Your task to perform on an android device: How much does a 2 bedroom apartment rent for in New York? Image 0: 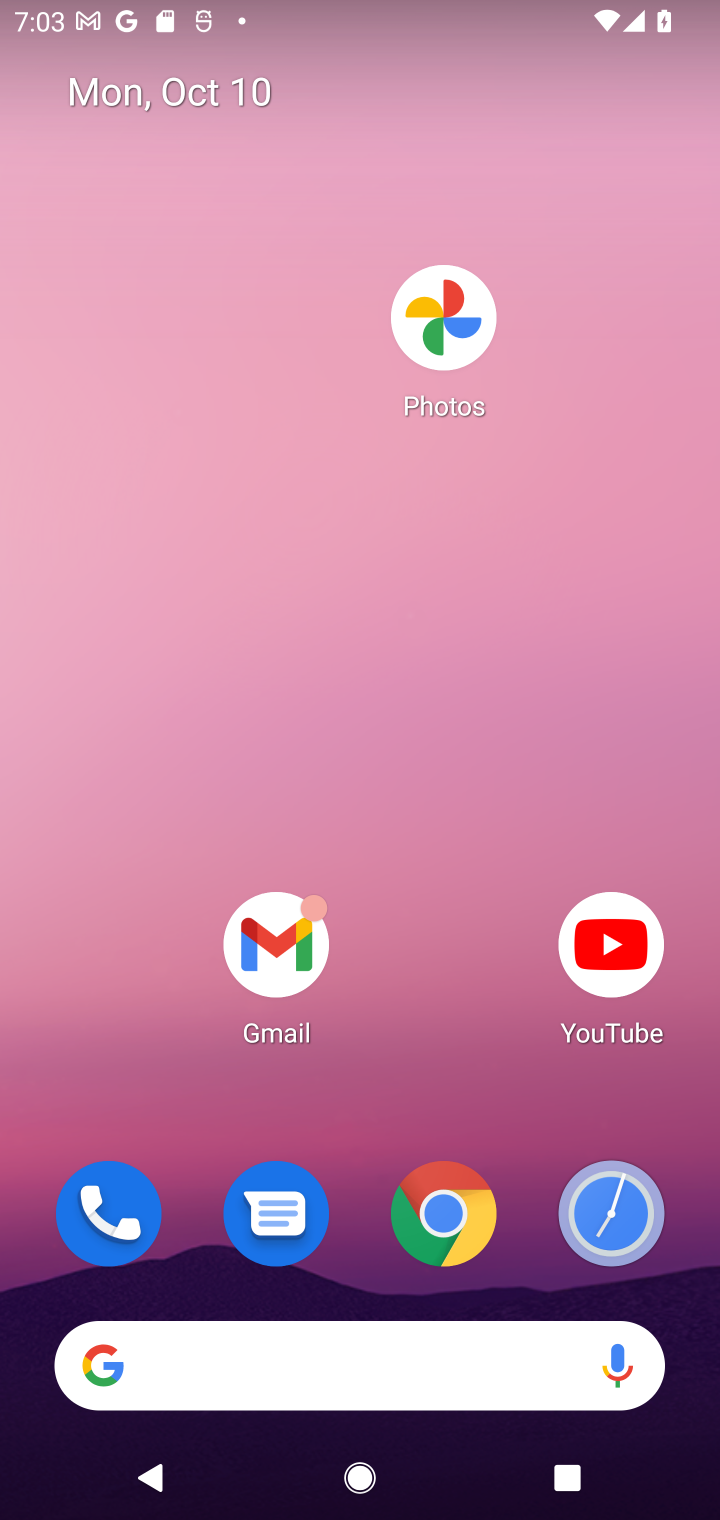
Step 0: click (322, 1384)
Your task to perform on an android device: How much does a 2 bedroom apartment rent for in New York? Image 1: 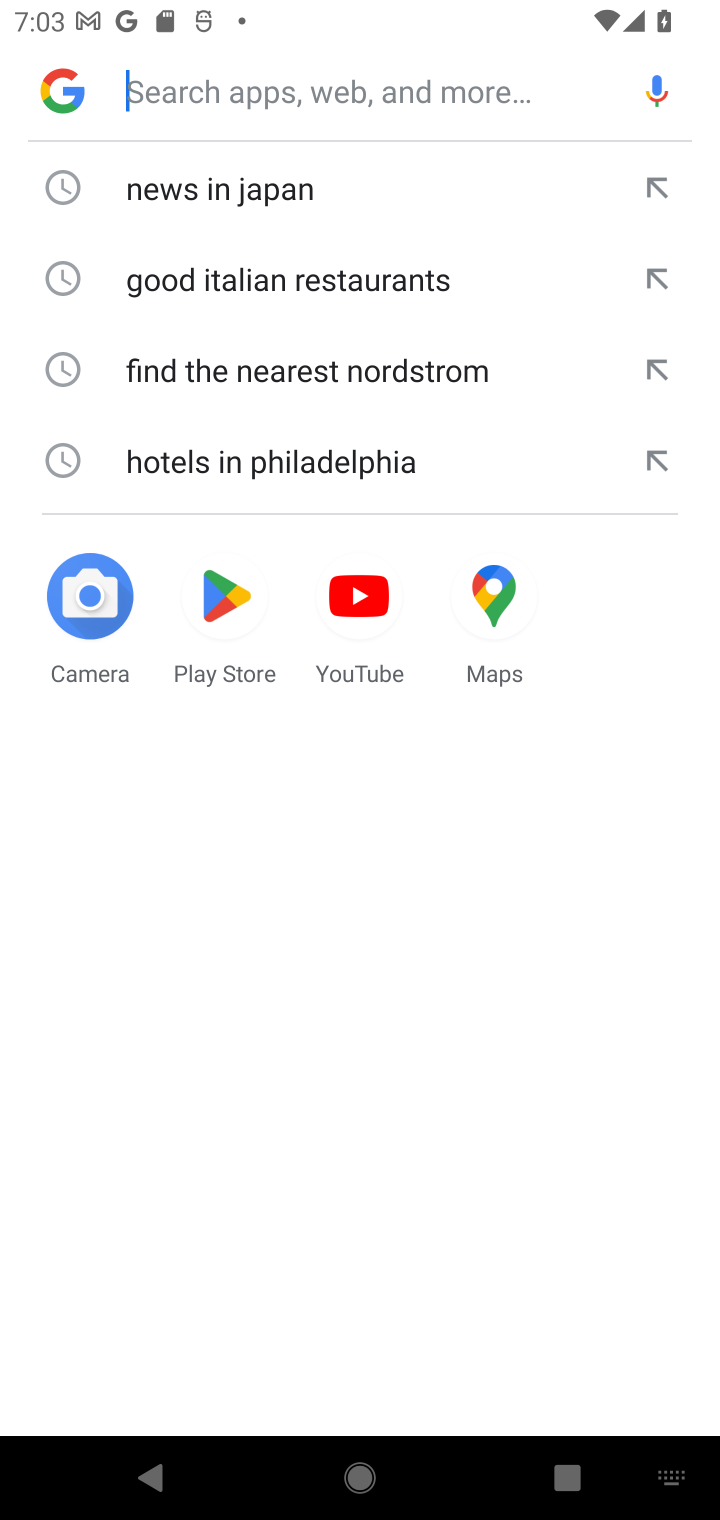
Step 1: type "2 bedroom apartment rent for in New York"
Your task to perform on an android device: How much does a 2 bedroom apartment rent for in New York? Image 2: 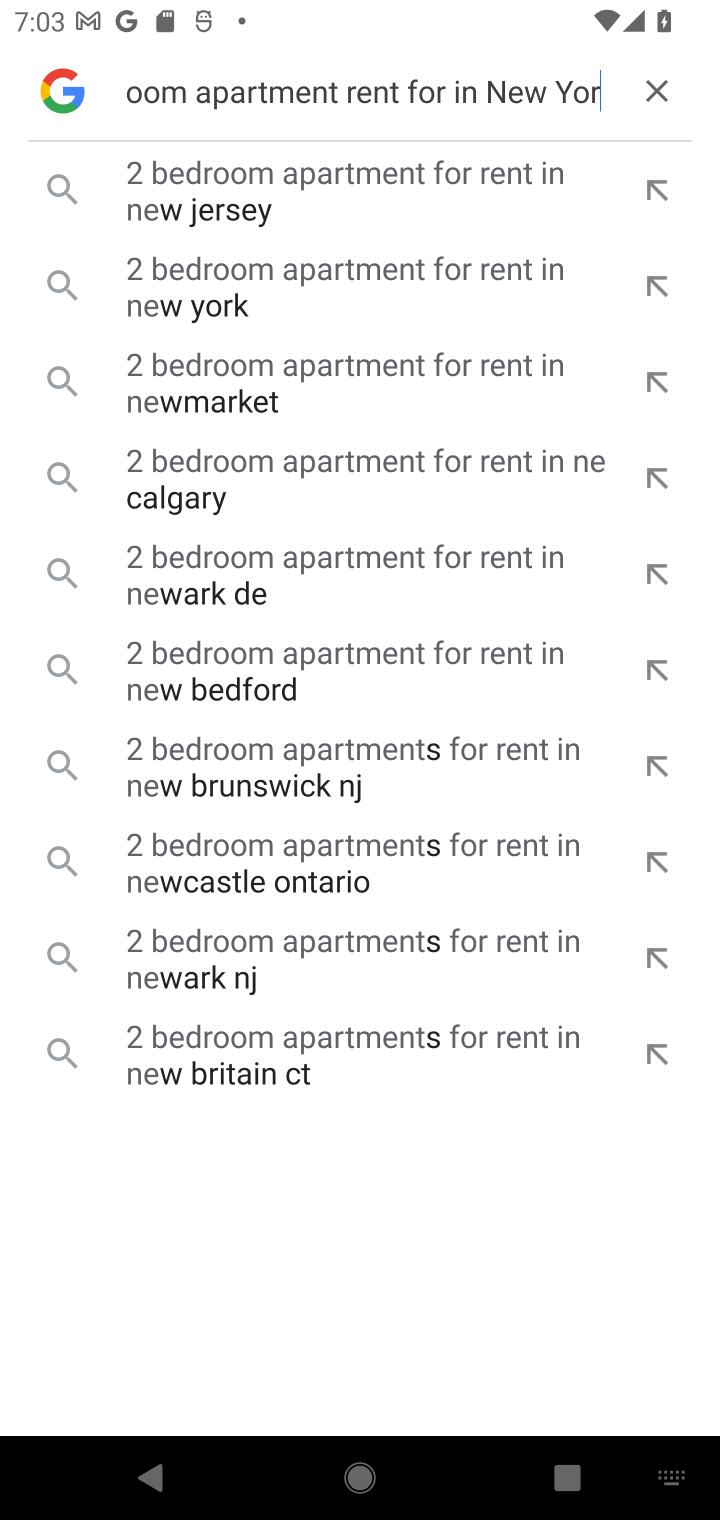
Step 2: type ""
Your task to perform on an android device: How much does a 2 bedroom apartment rent for in New York? Image 3: 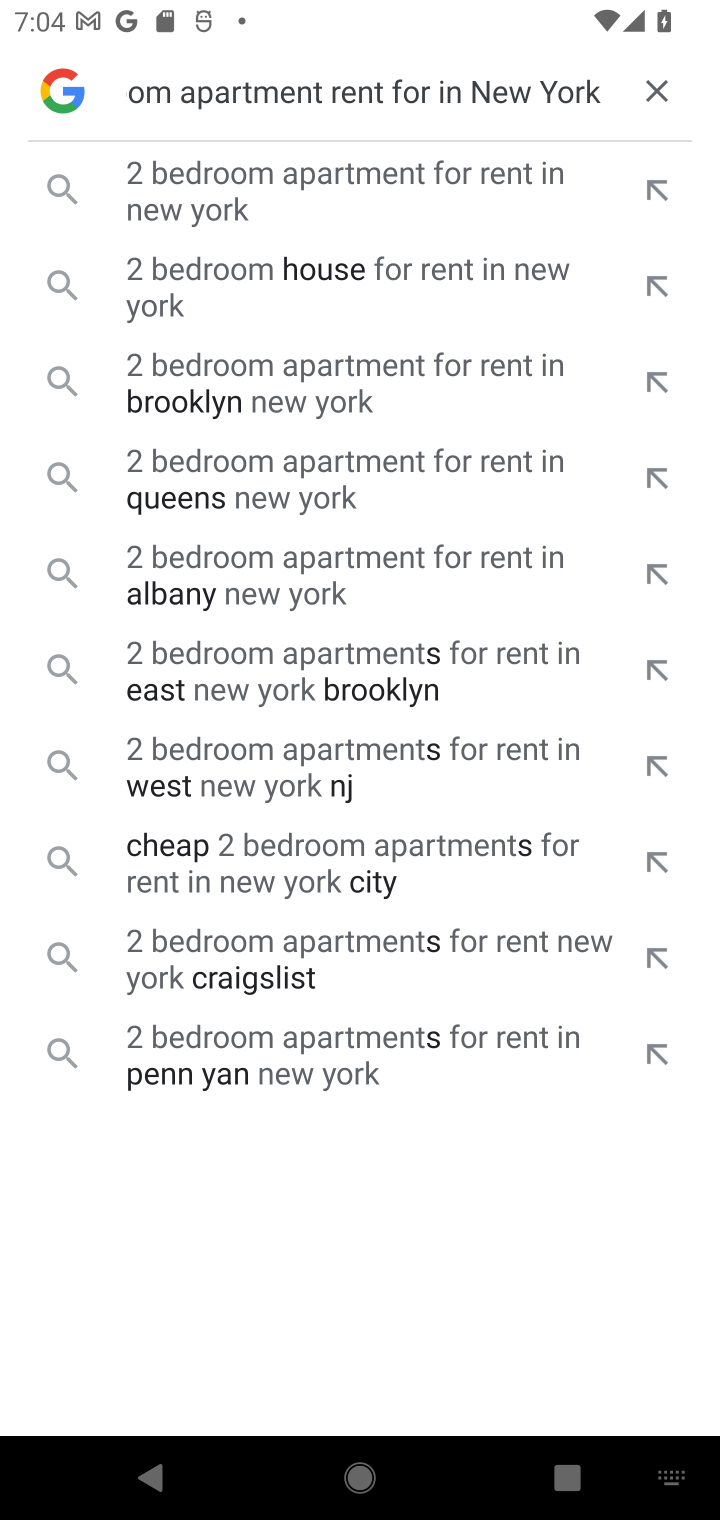
Step 3: click (434, 185)
Your task to perform on an android device: How much does a 2 bedroom apartment rent for in New York? Image 4: 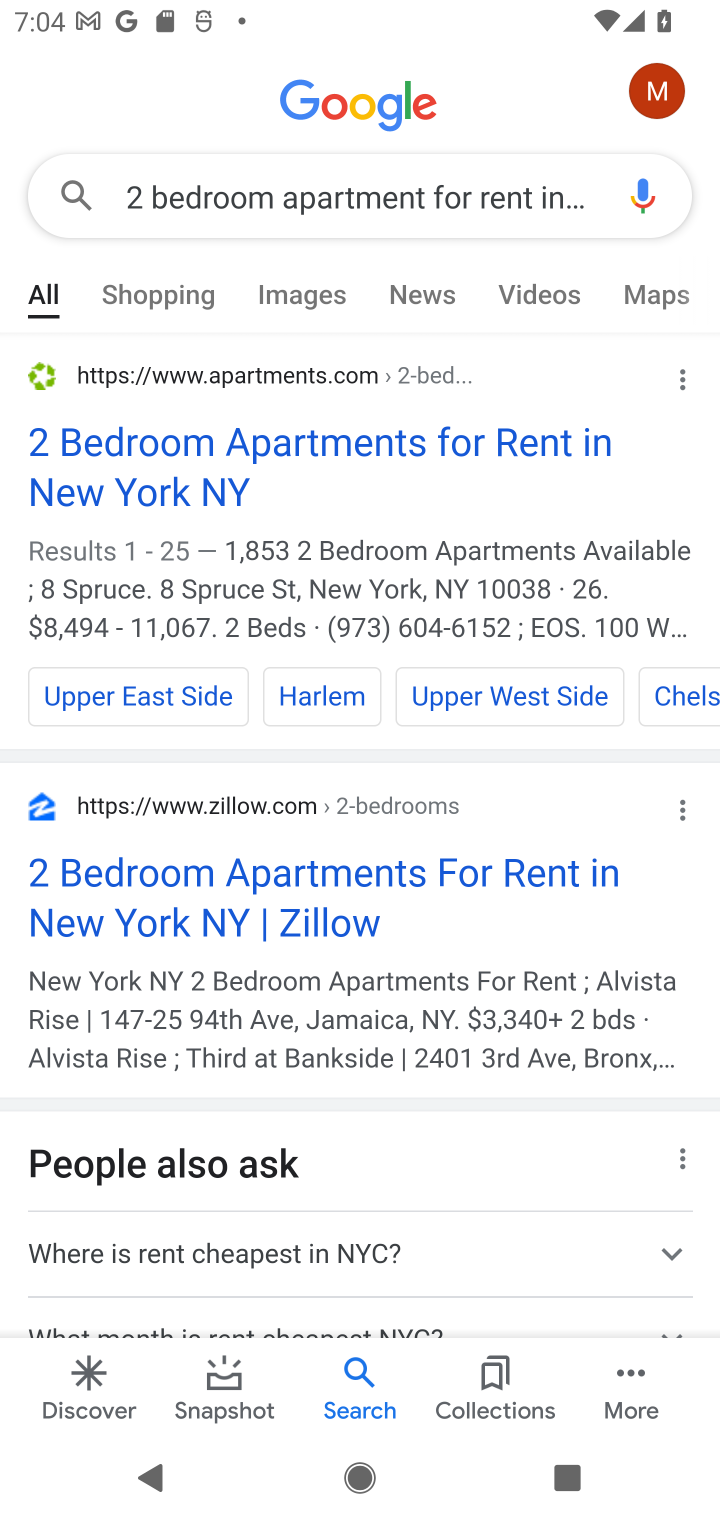
Step 4: click (435, 474)
Your task to perform on an android device: How much does a 2 bedroom apartment rent for in New York? Image 5: 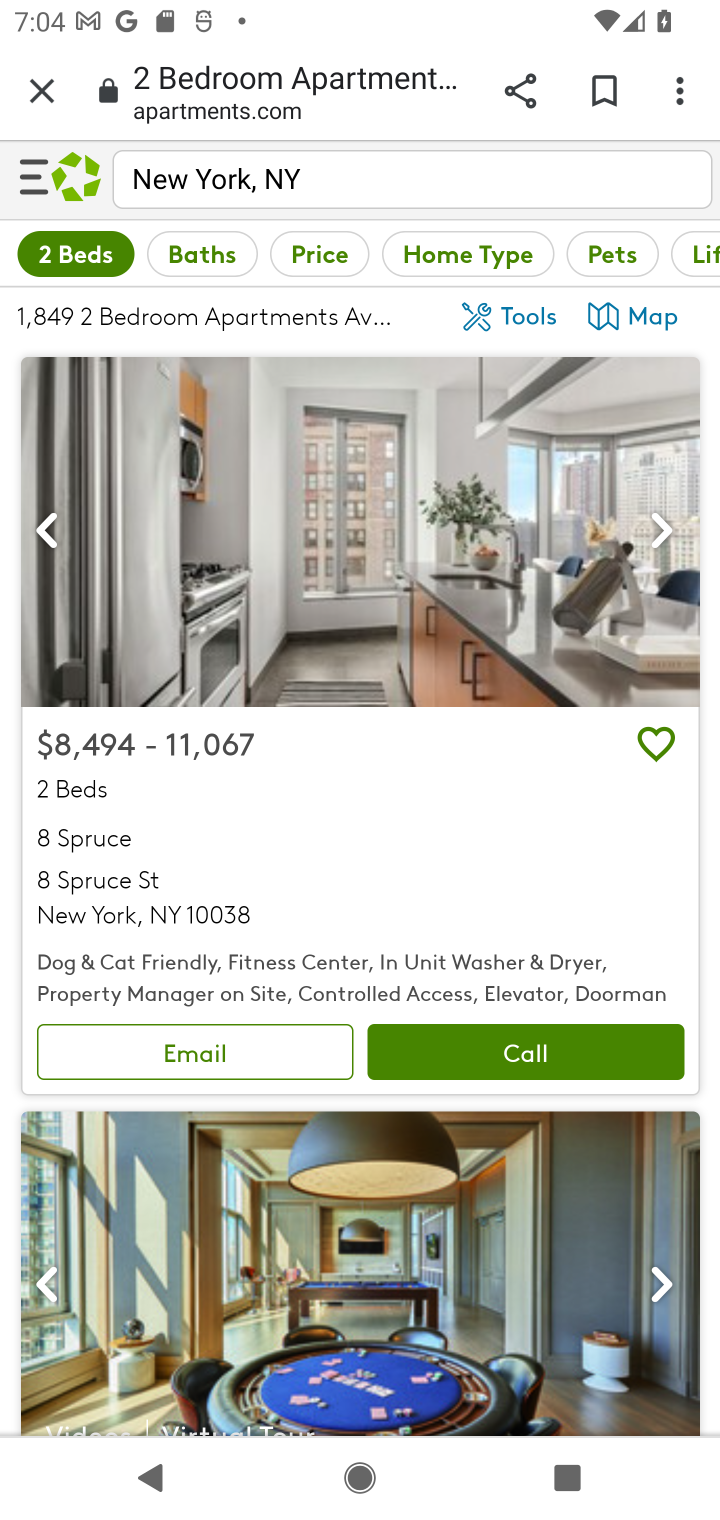
Step 5: task complete